Your task to perform on an android device: Do I have any events today? Image 0: 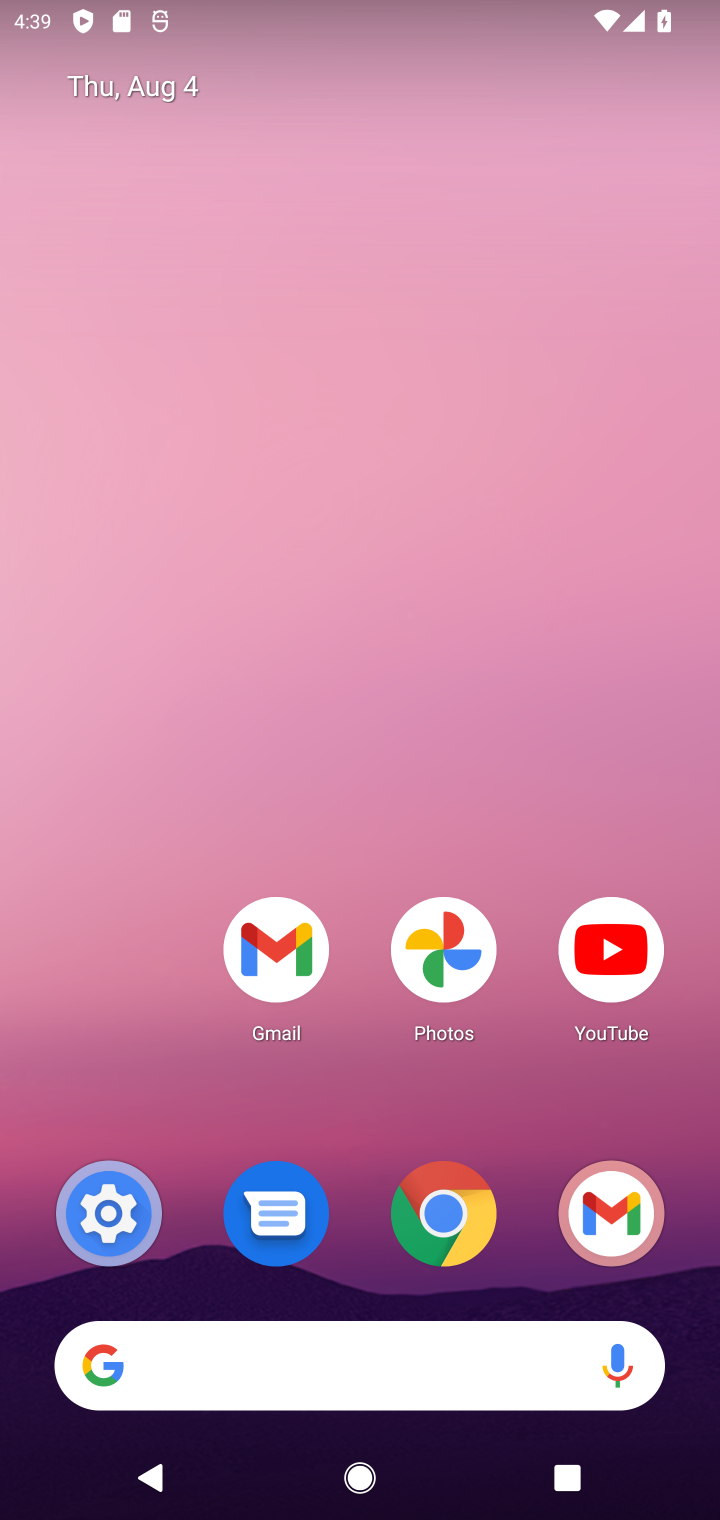
Step 0: drag from (143, 1010) to (174, 306)
Your task to perform on an android device: Do I have any events today? Image 1: 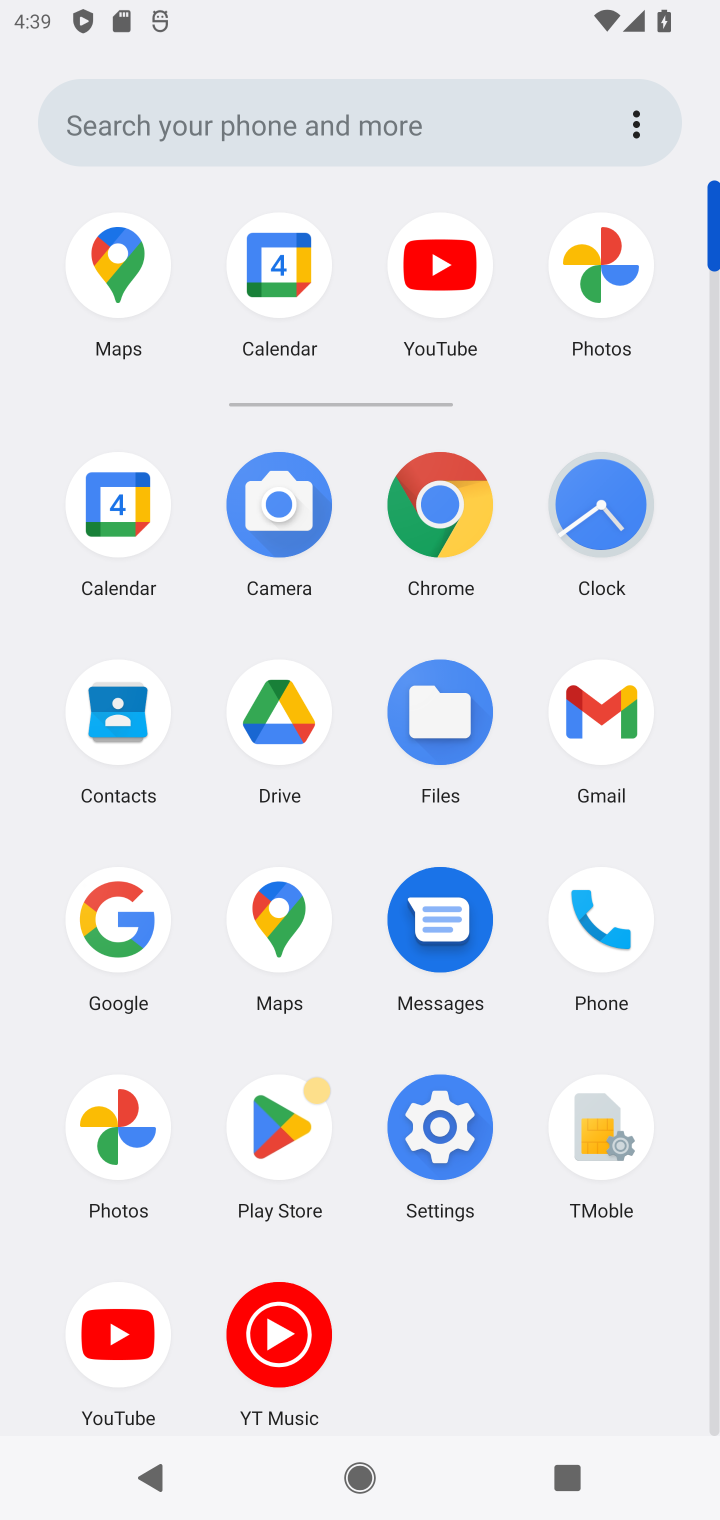
Step 1: click (126, 510)
Your task to perform on an android device: Do I have any events today? Image 2: 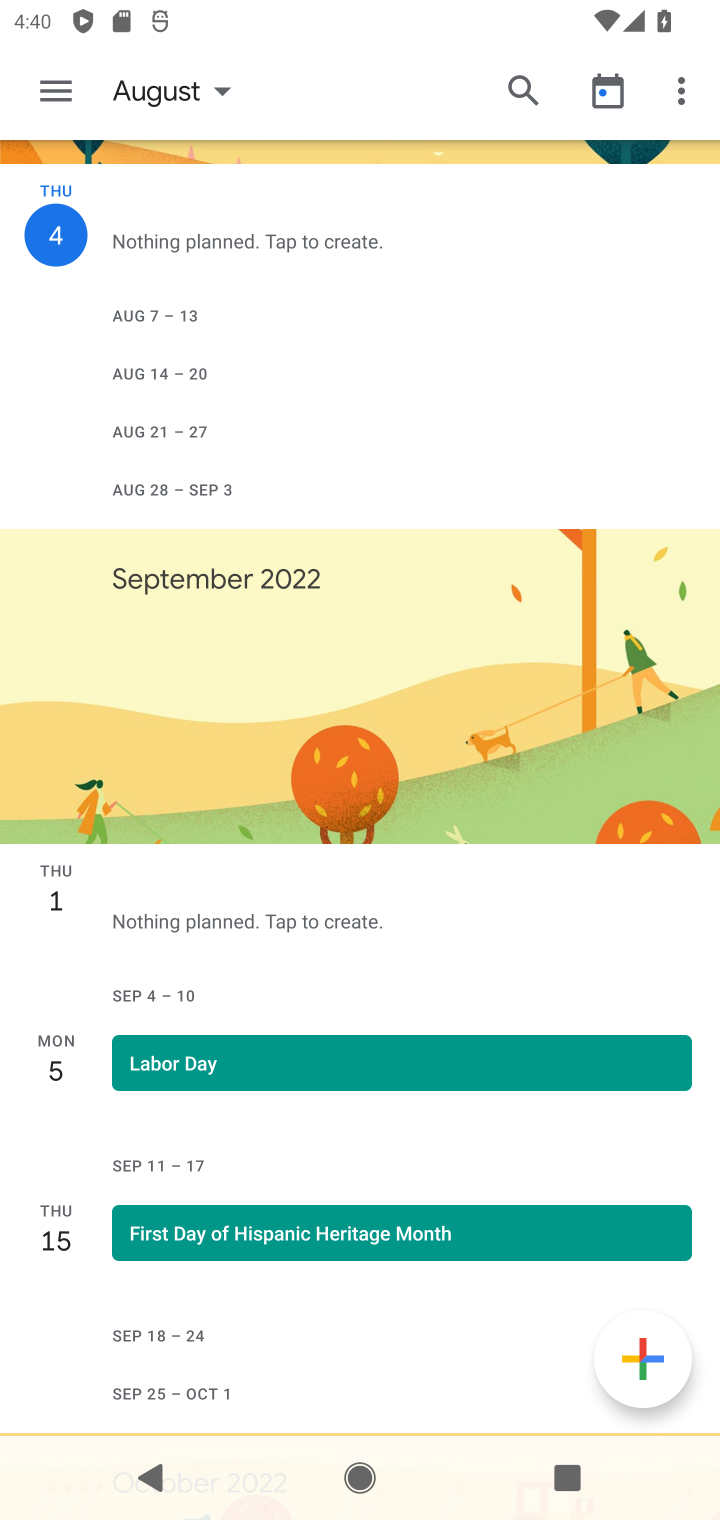
Step 2: task complete